Your task to perform on an android device: open app "PlayWell" Image 0: 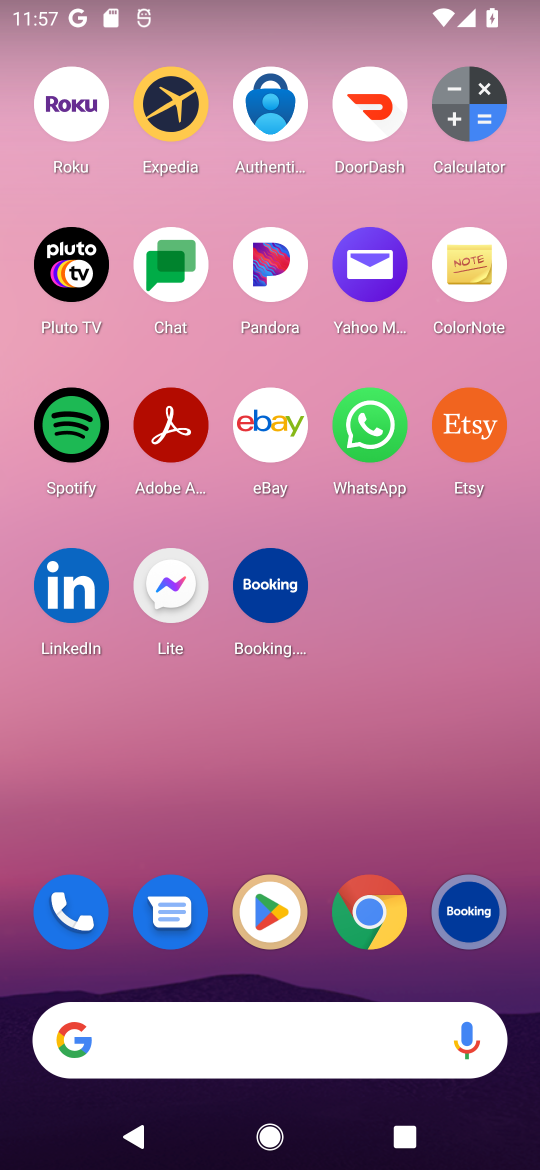
Step 0: click (275, 924)
Your task to perform on an android device: open app "PlayWell" Image 1: 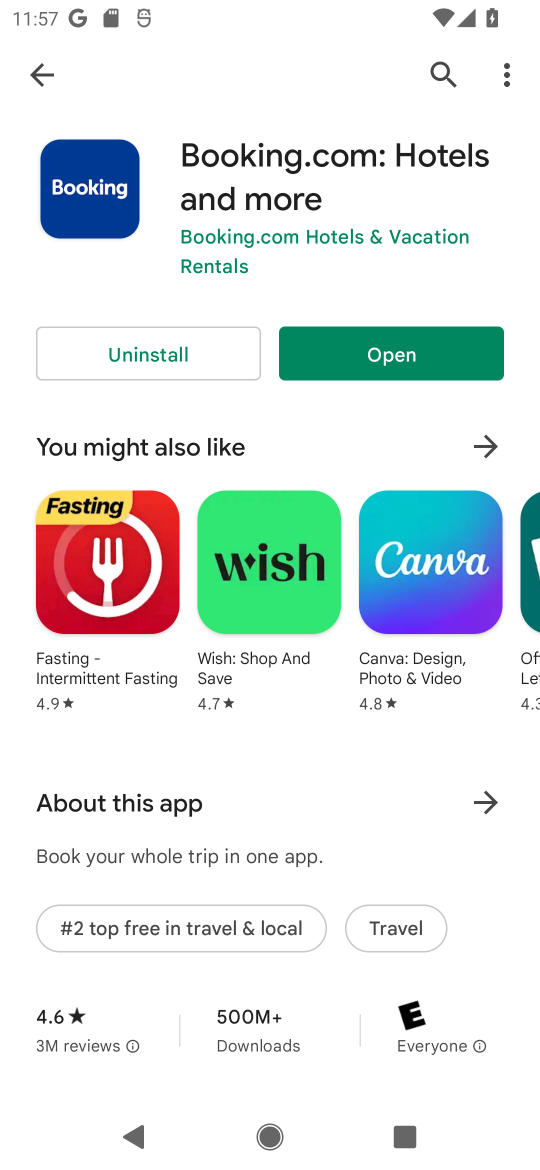
Step 1: click (435, 64)
Your task to perform on an android device: open app "PlayWell" Image 2: 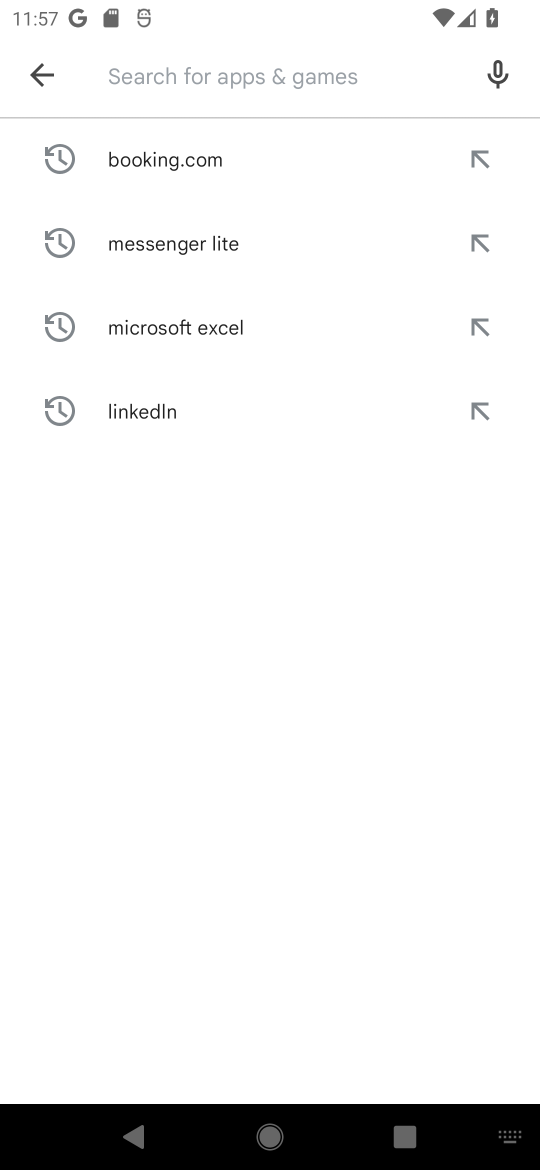
Step 2: click (171, 74)
Your task to perform on an android device: open app "PlayWell" Image 3: 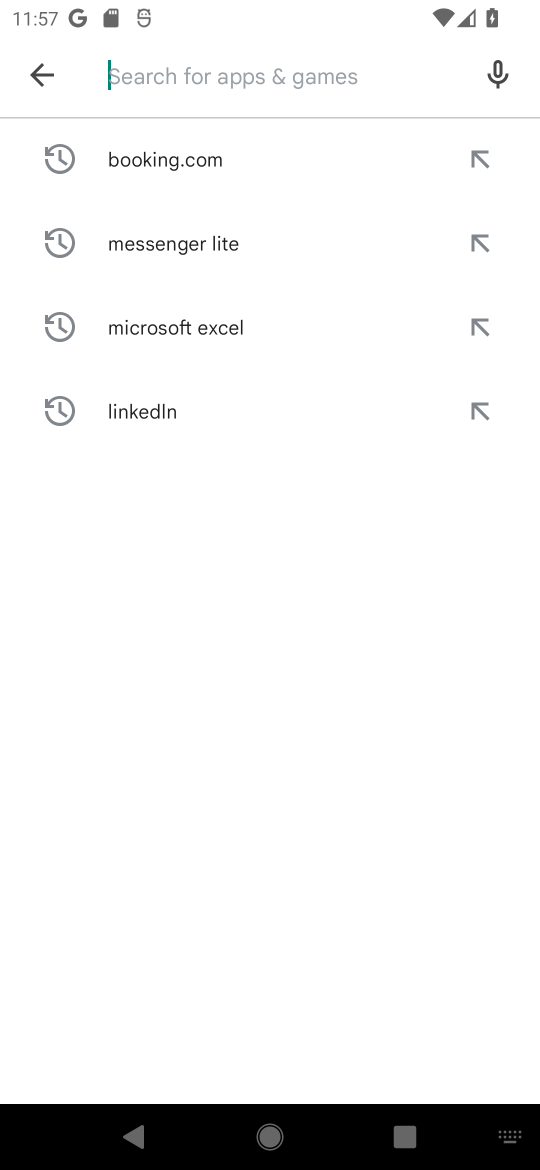
Step 3: click (153, 71)
Your task to perform on an android device: open app "PlayWell" Image 4: 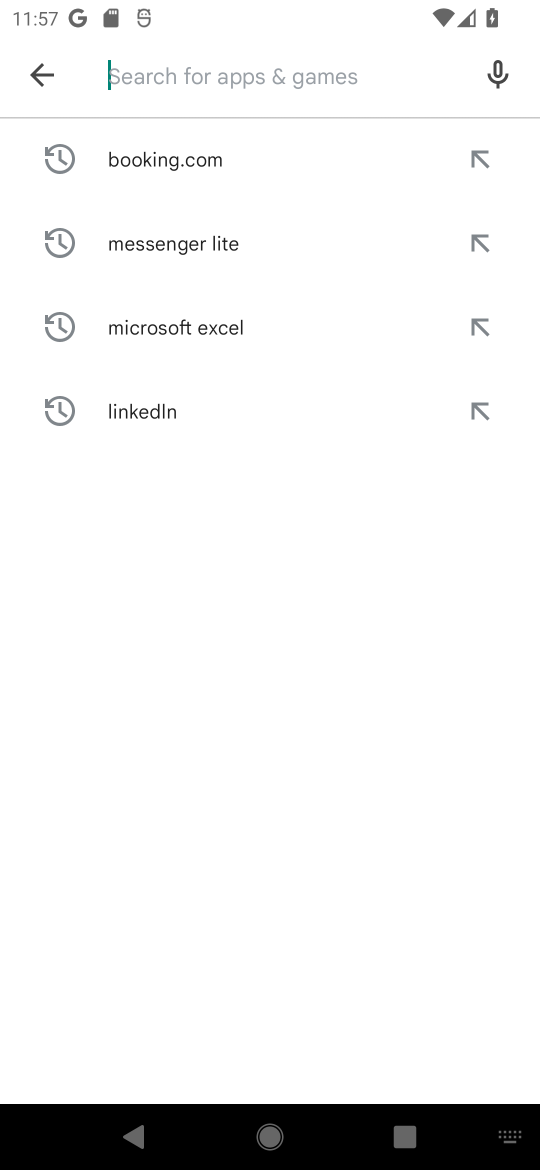
Step 4: type "PlayWell"
Your task to perform on an android device: open app "PlayWell" Image 5: 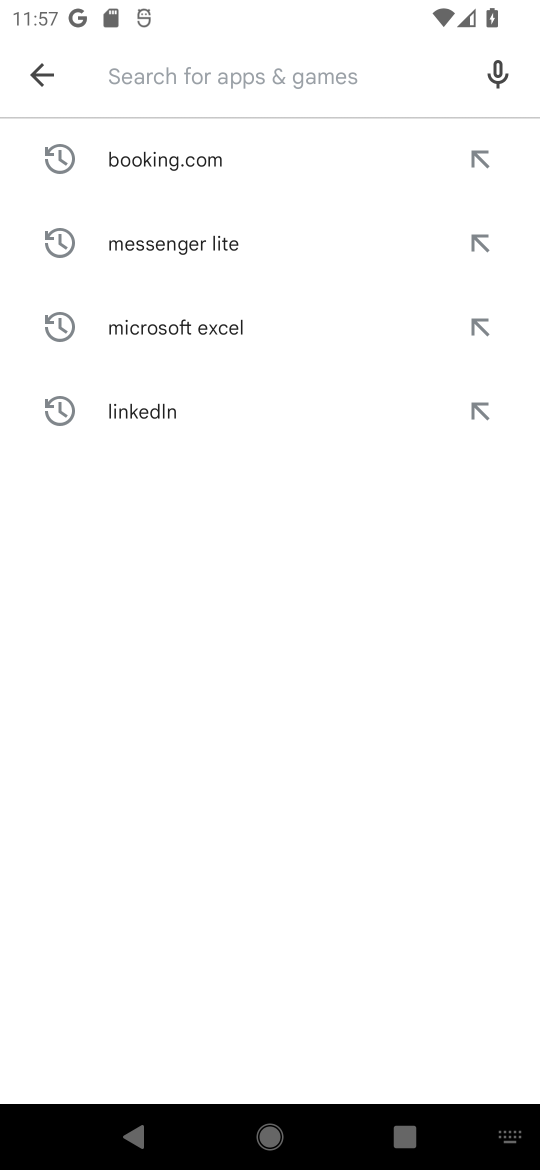
Step 5: click (196, 753)
Your task to perform on an android device: open app "PlayWell" Image 6: 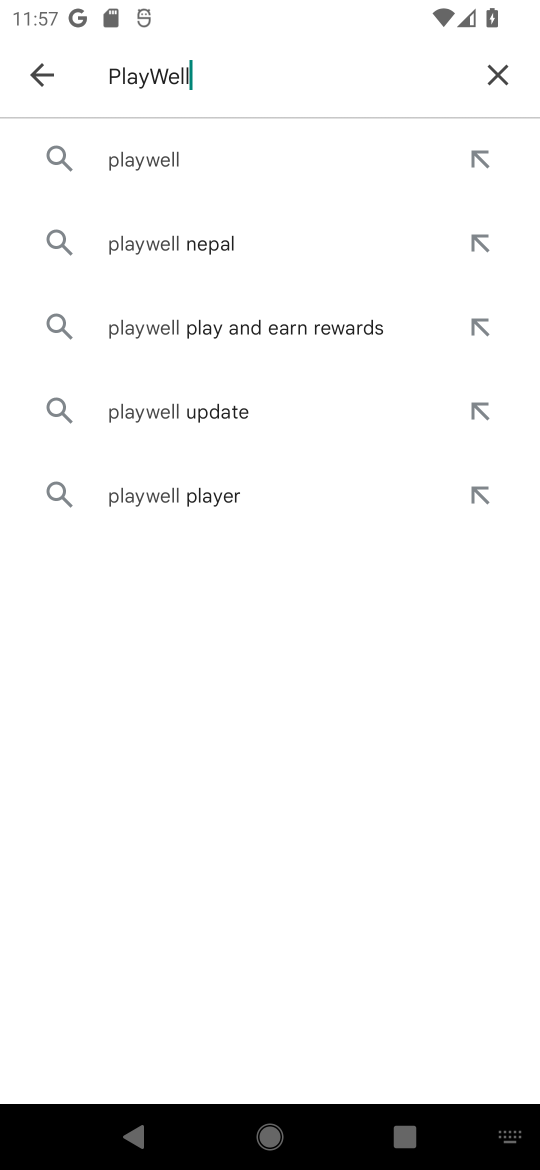
Step 6: click (159, 140)
Your task to perform on an android device: open app "PlayWell" Image 7: 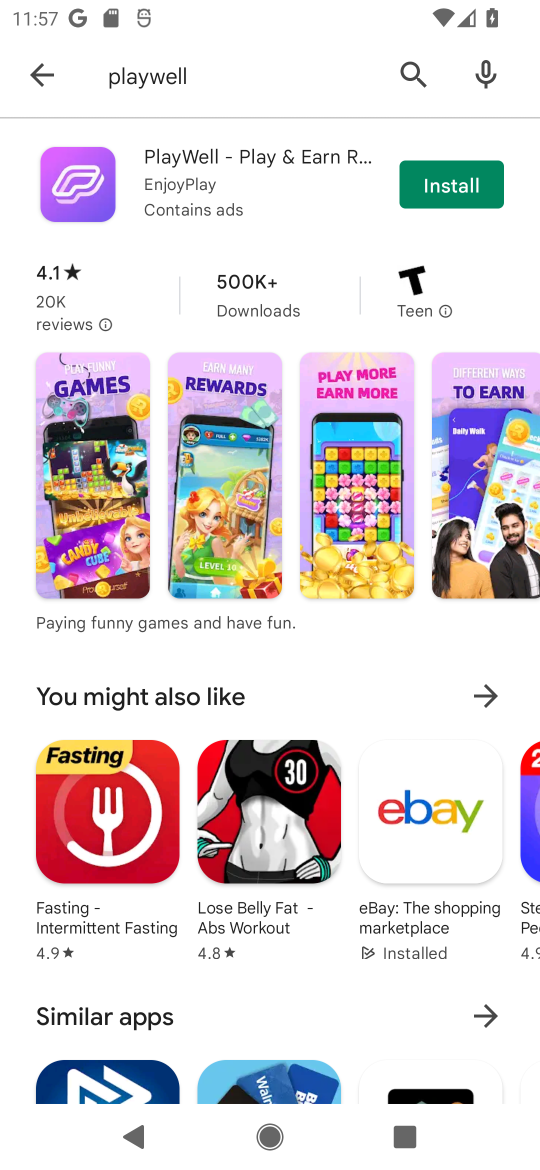
Step 7: task complete